Your task to perform on an android device: What's the weather today? Image 0: 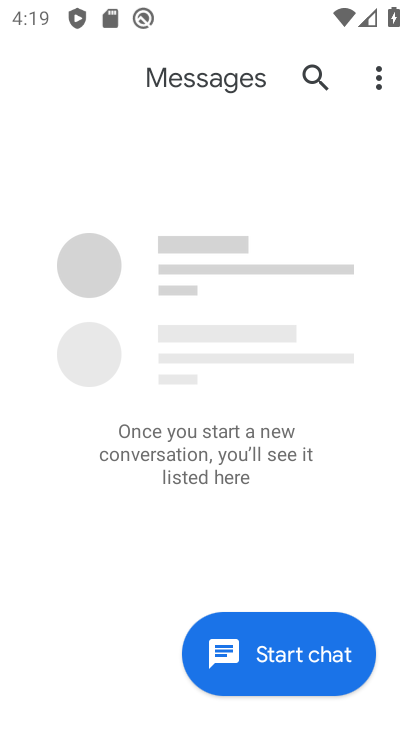
Step 0: press home button
Your task to perform on an android device: What's the weather today? Image 1: 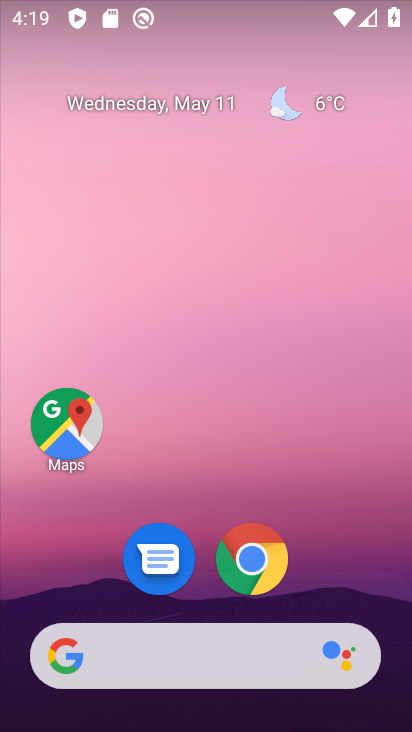
Step 1: drag from (282, 460) to (195, 168)
Your task to perform on an android device: What's the weather today? Image 2: 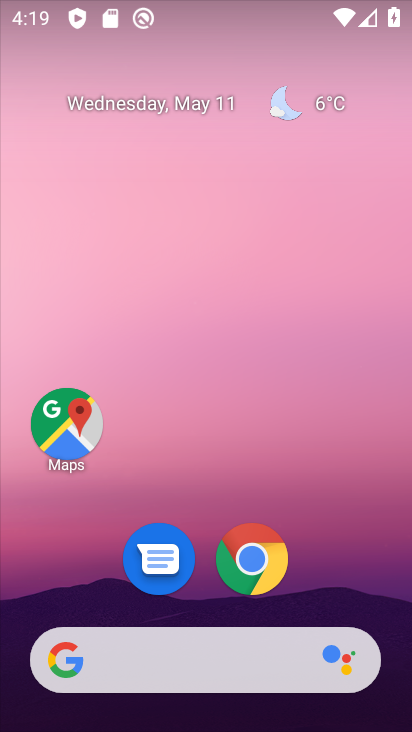
Step 2: click (170, 657)
Your task to perform on an android device: What's the weather today? Image 3: 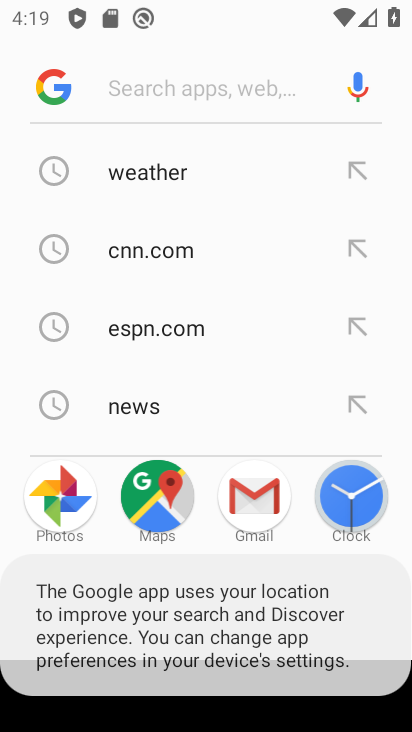
Step 3: click (181, 186)
Your task to perform on an android device: What's the weather today? Image 4: 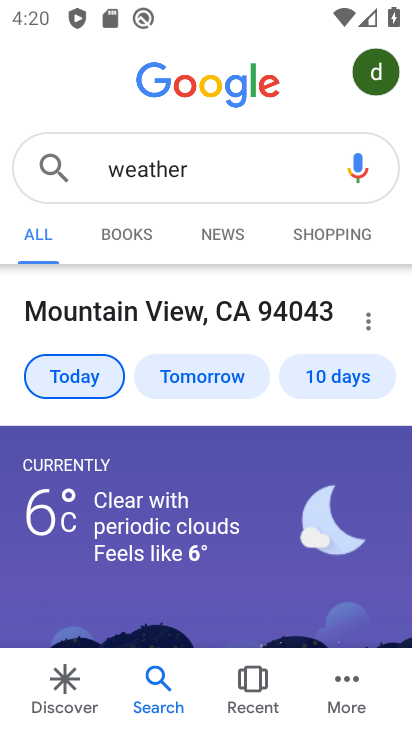
Step 4: task complete